Your task to perform on an android device: Go to sound settings Image 0: 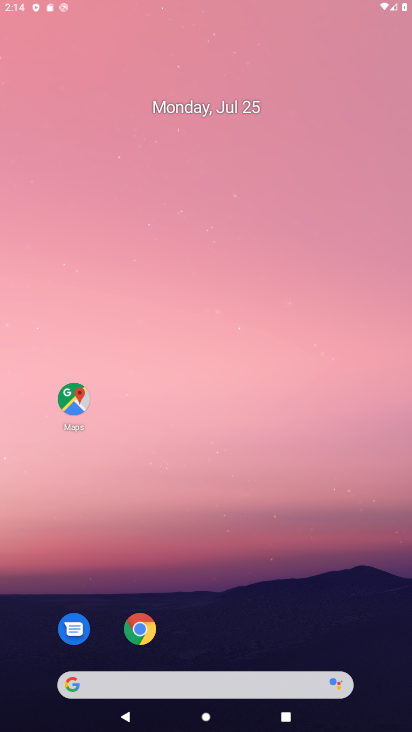
Step 0: drag from (248, 627) to (224, 112)
Your task to perform on an android device: Go to sound settings Image 1: 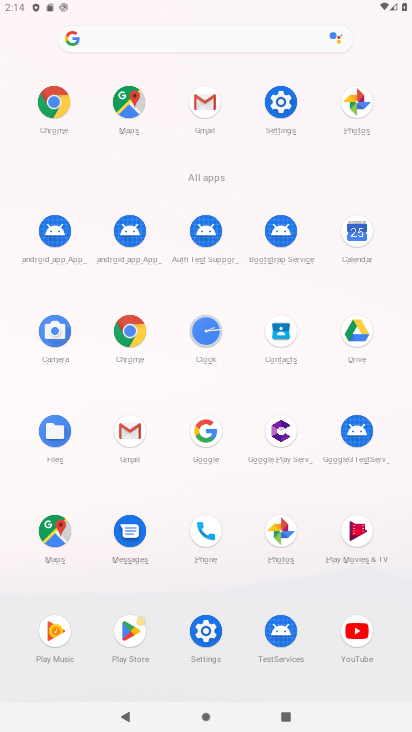
Step 1: click (276, 108)
Your task to perform on an android device: Go to sound settings Image 2: 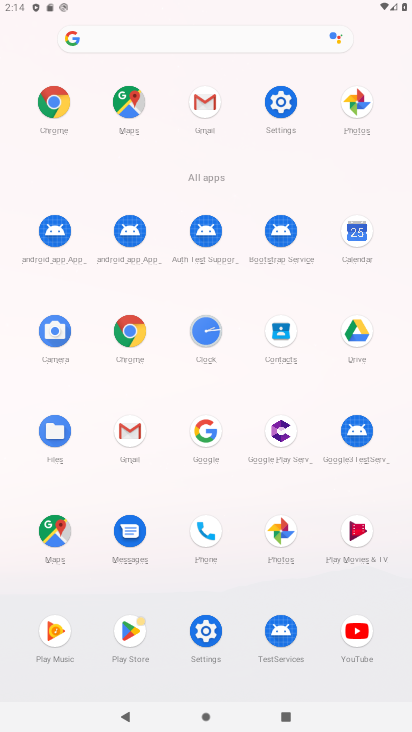
Step 2: click (281, 82)
Your task to perform on an android device: Go to sound settings Image 3: 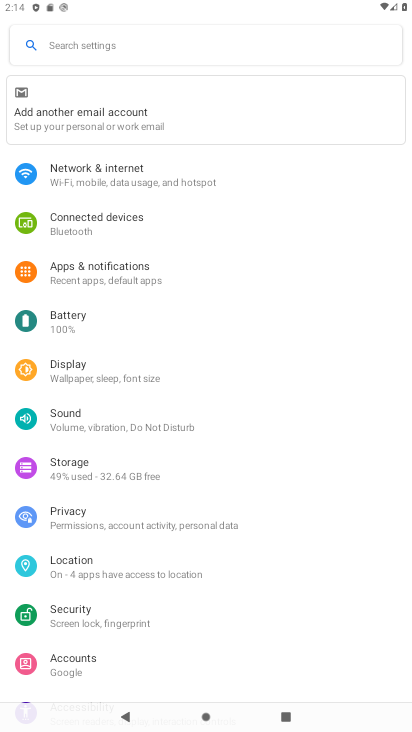
Step 3: click (293, 101)
Your task to perform on an android device: Go to sound settings Image 4: 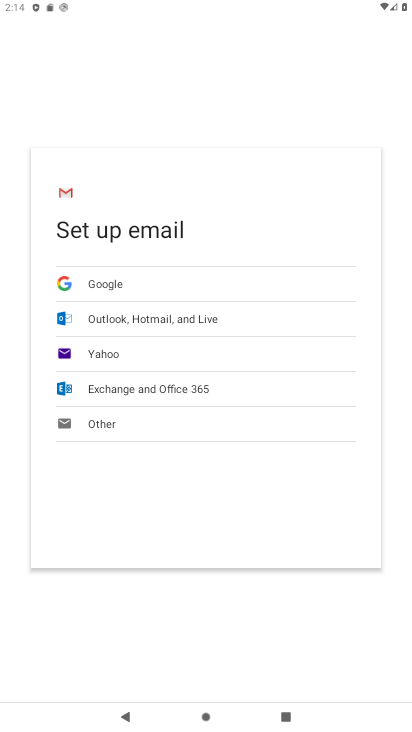
Step 4: click (92, 606)
Your task to perform on an android device: Go to sound settings Image 5: 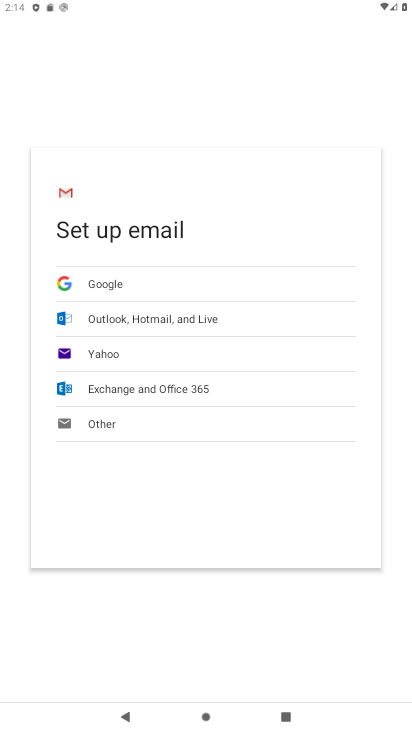
Step 5: press back button
Your task to perform on an android device: Go to sound settings Image 6: 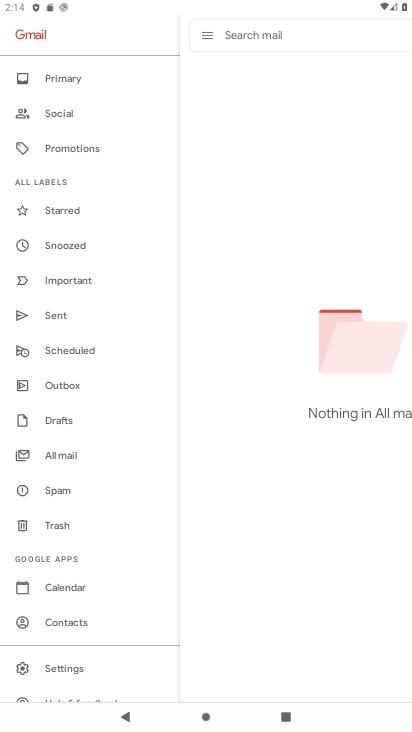
Step 6: drag from (119, 339) to (104, 150)
Your task to perform on an android device: Go to sound settings Image 7: 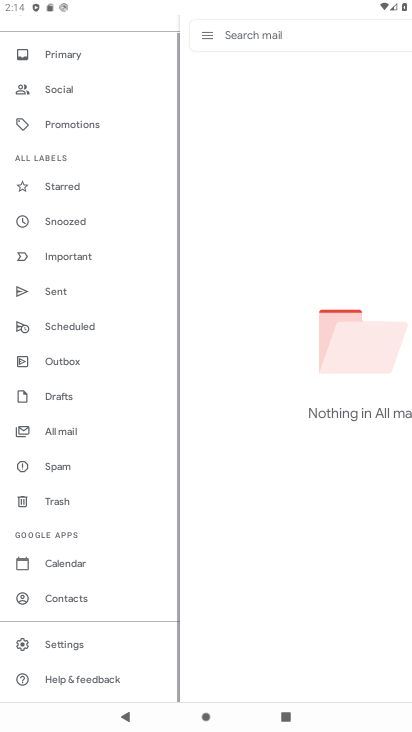
Step 7: drag from (140, 370) to (124, 166)
Your task to perform on an android device: Go to sound settings Image 8: 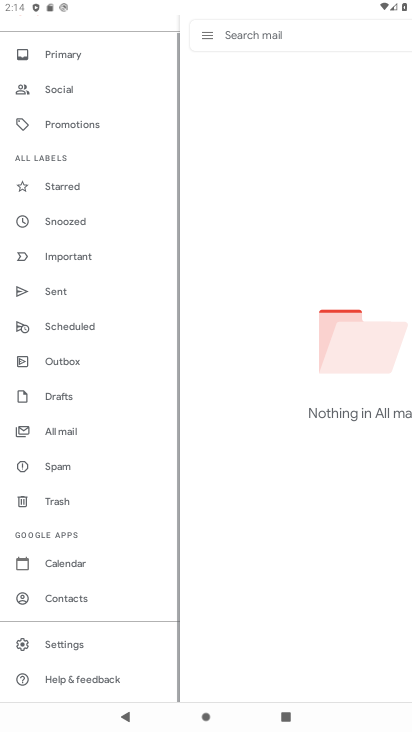
Step 8: drag from (127, 291) to (127, 184)
Your task to perform on an android device: Go to sound settings Image 9: 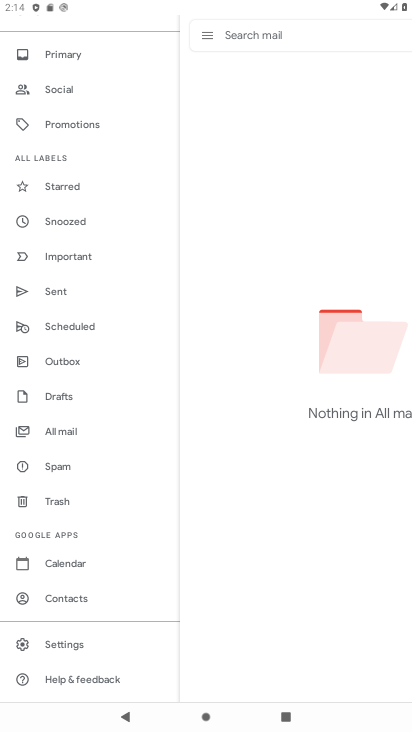
Step 9: click (69, 638)
Your task to perform on an android device: Go to sound settings Image 10: 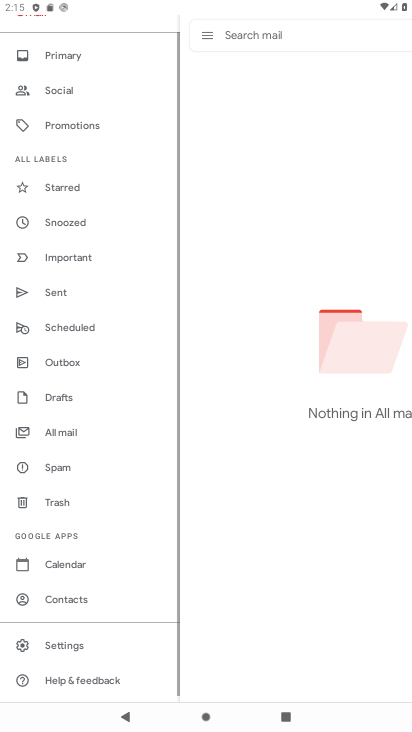
Step 10: click (70, 644)
Your task to perform on an android device: Go to sound settings Image 11: 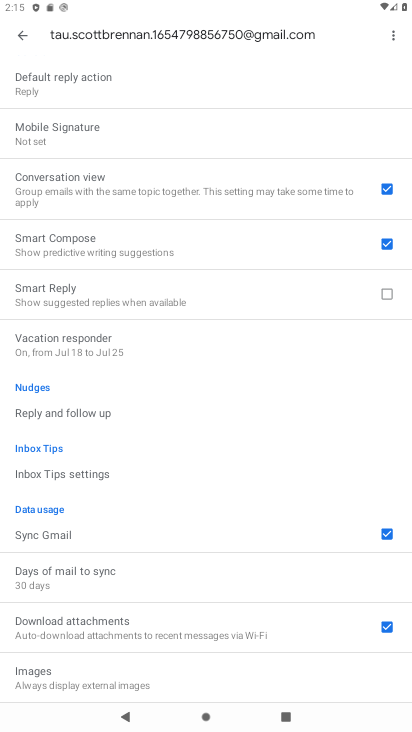
Step 11: click (20, 32)
Your task to perform on an android device: Go to sound settings Image 12: 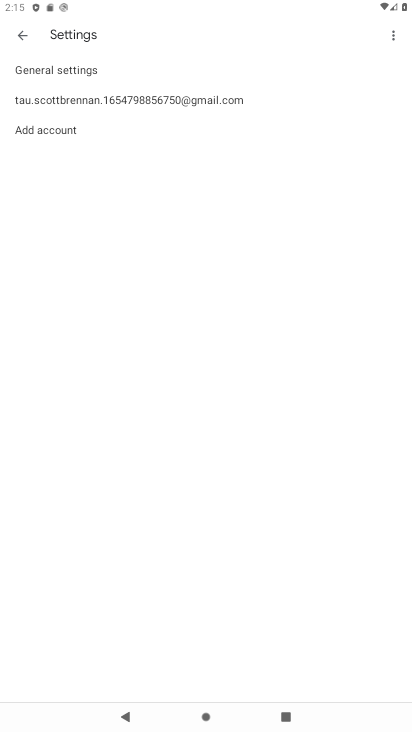
Step 12: click (76, 99)
Your task to perform on an android device: Go to sound settings Image 13: 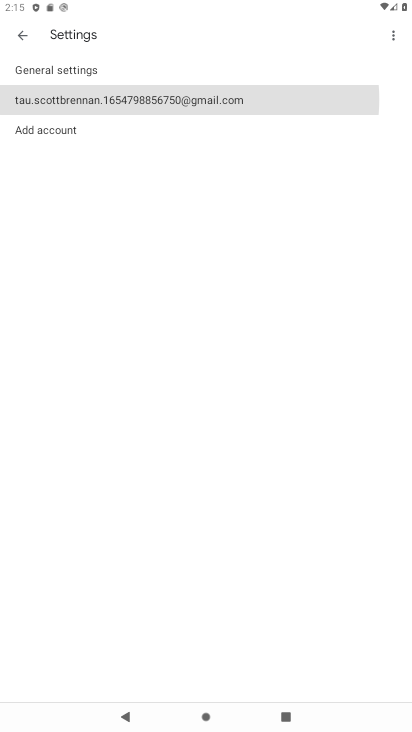
Step 13: click (77, 98)
Your task to perform on an android device: Go to sound settings Image 14: 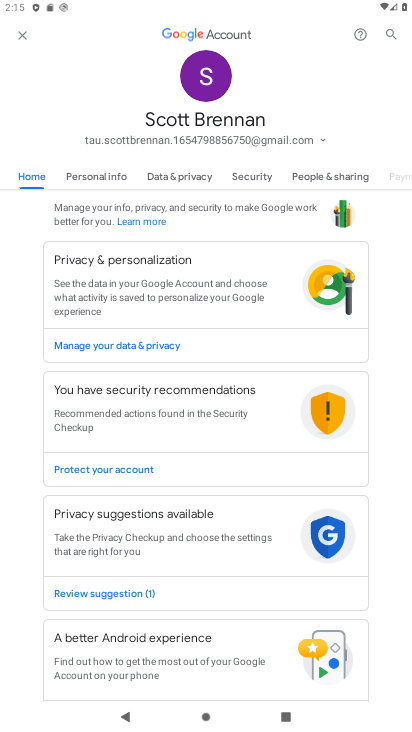
Step 14: click (26, 36)
Your task to perform on an android device: Go to sound settings Image 15: 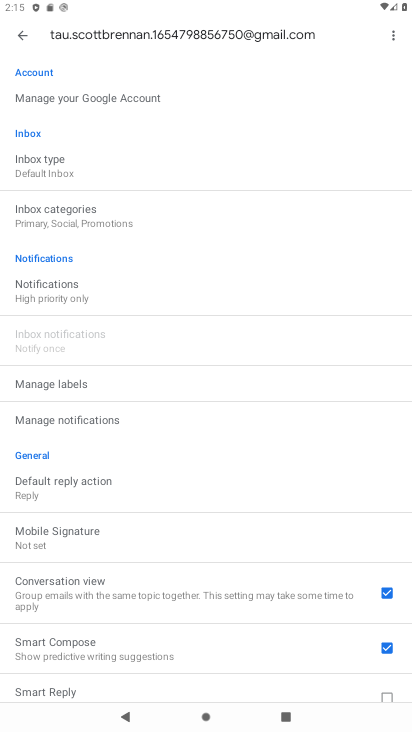
Step 15: click (20, 29)
Your task to perform on an android device: Go to sound settings Image 16: 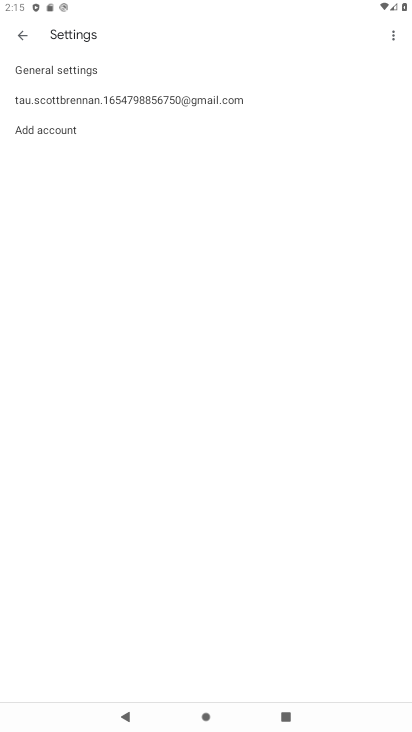
Step 16: click (22, 26)
Your task to perform on an android device: Go to sound settings Image 17: 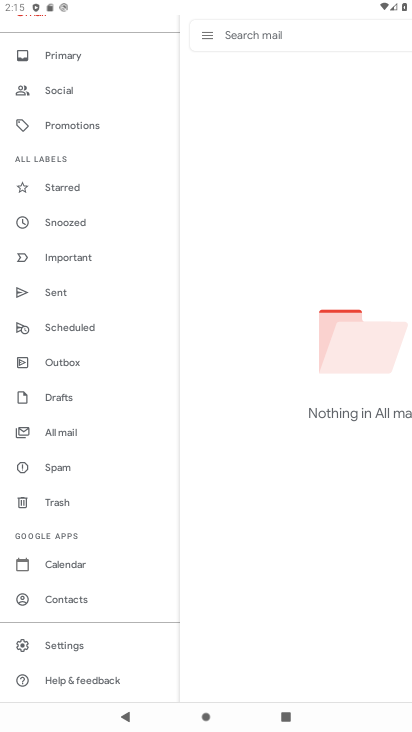
Step 17: press back button
Your task to perform on an android device: Go to sound settings Image 18: 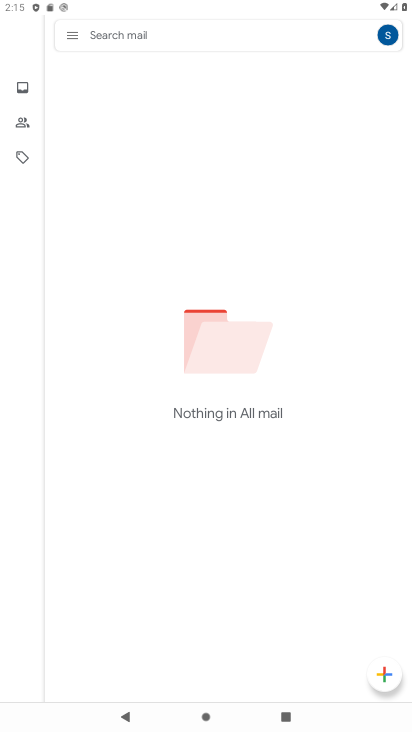
Step 18: press home button
Your task to perform on an android device: Go to sound settings Image 19: 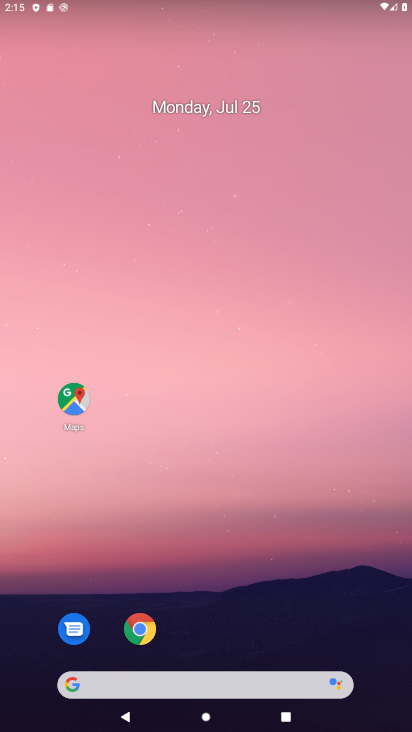
Step 19: drag from (180, 529) to (111, 202)
Your task to perform on an android device: Go to sound settings Image 20: 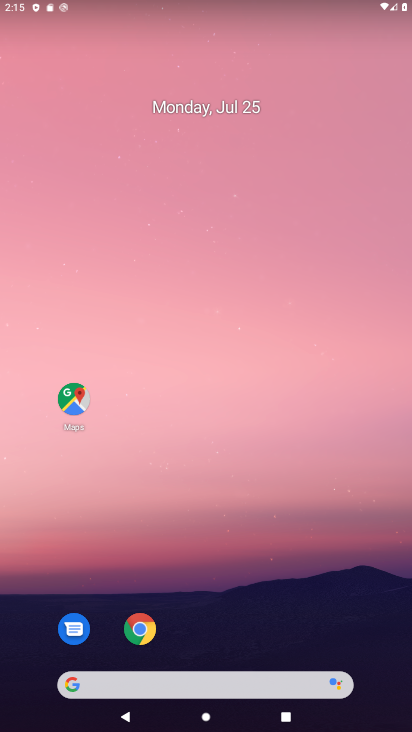
Step 20: drag from (238, 488) to (226, 116)
Your task to perform on an android device: Go to sound settings Image 21: 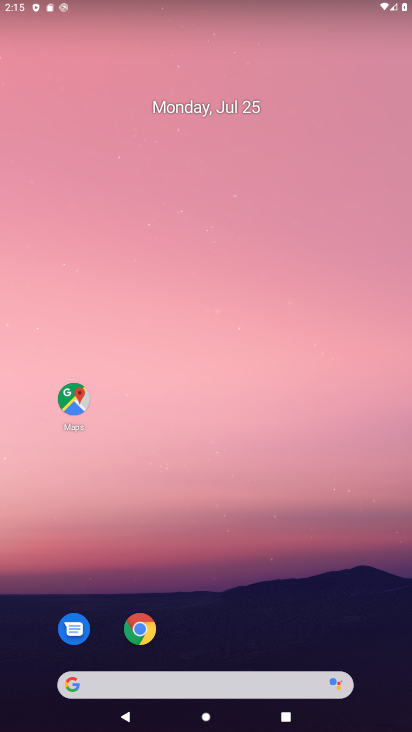
Step 21: drag from (268, 543) to (229, 101)
Your task to perform on an android device: Go to sound settings Image 22: 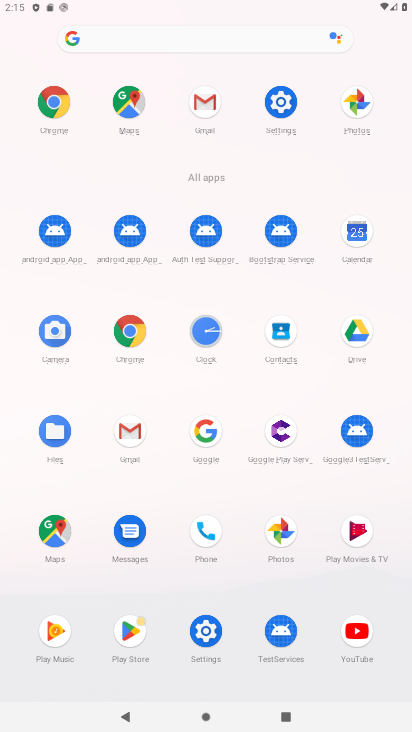
Step 22: click (211, 632)
Your task to perform on an android device: Go to sound settings Image 23: 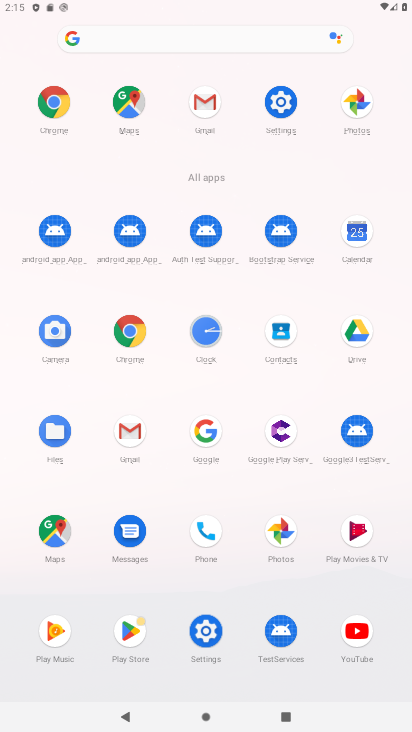
Step 23: click (208, 632)
Your task to perform on an android device: Go to sound settings Image 24: 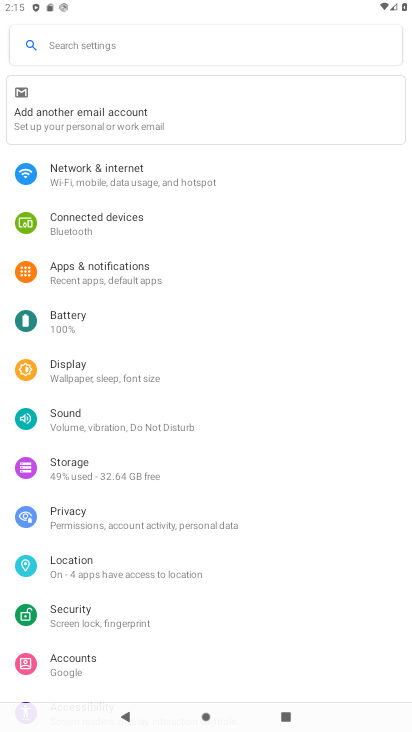
Step 24: click (75, 435)
Your task to perform on an android device: Go to sound settings Image 25: 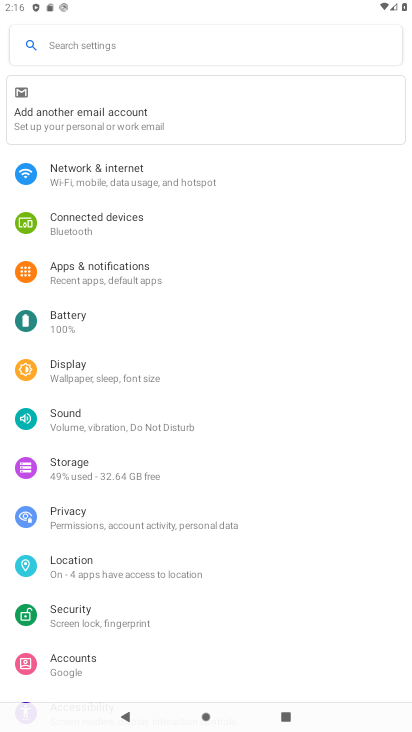
Step 25: click (67, 426)
Your task to perform on an android device: Go to sound settings Image 26: 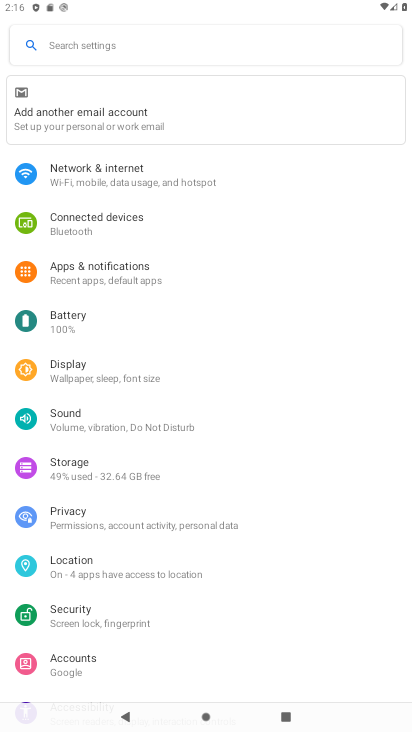
Step 26: click (68, 423)
Your task to perform on an android device: Go to sound settings Image 27: 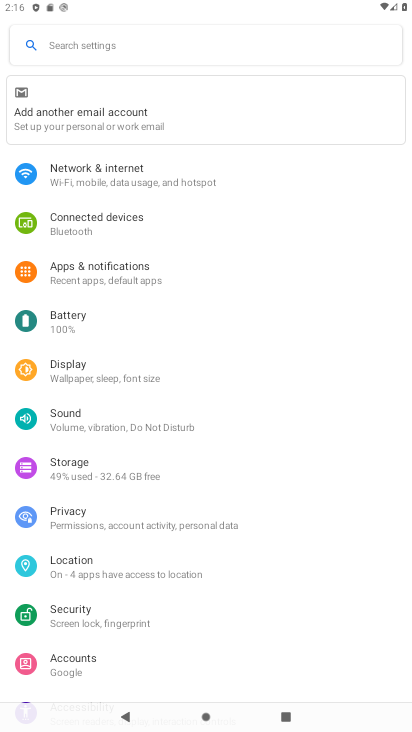
Step 27: click (69, 422)
Your task to perform on an android device: Go to sound settings Image 28: 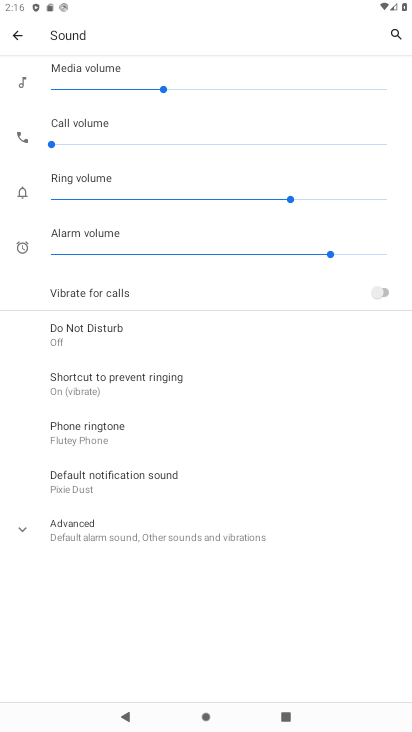
Step 28: task complete